Your task to perform on an android device: change the clock display to show seconds Image 0: 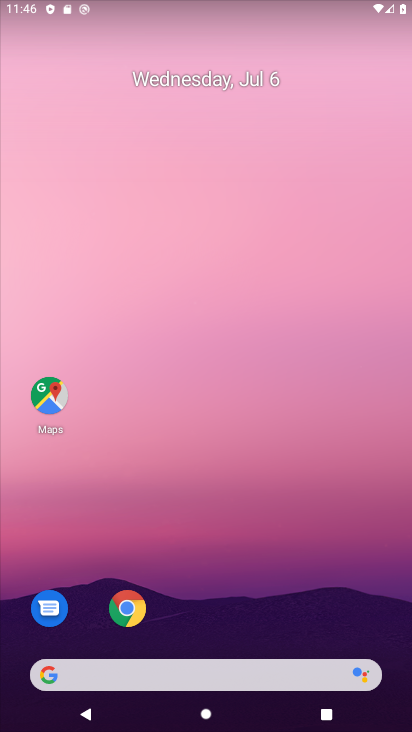
Step 0: press home button
Your task to perform on an android device: change the clock display to show seconds Image 1: 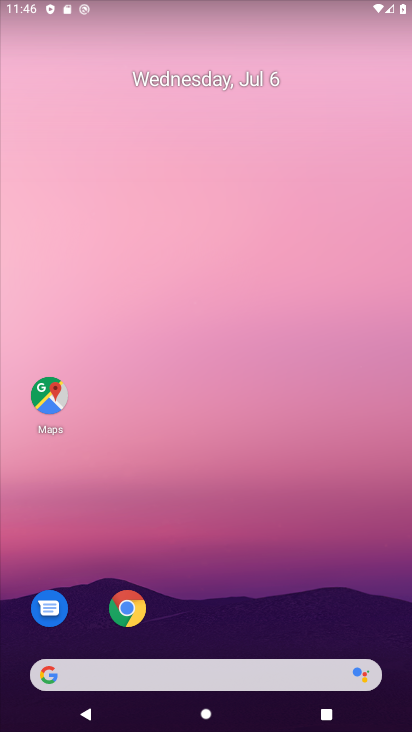
Step 1: drag from (213, 598) to (80, 188)
Your task to perform on an android device: change the clock display to show seconds Image 2: 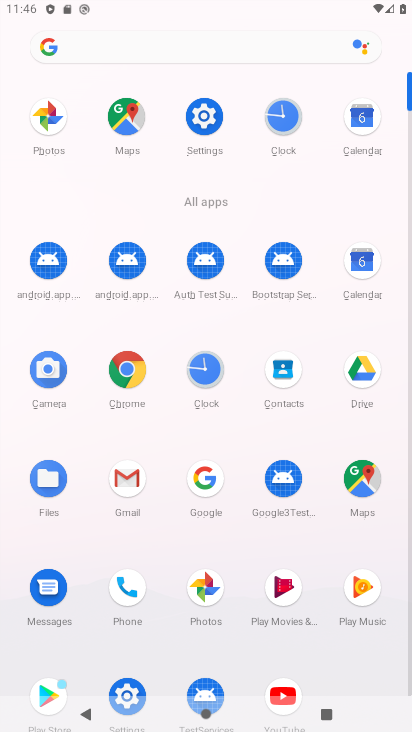
Step 2: click (286, 117)
Your task to perform on an android device: change the clock display to show seconds Image 3: 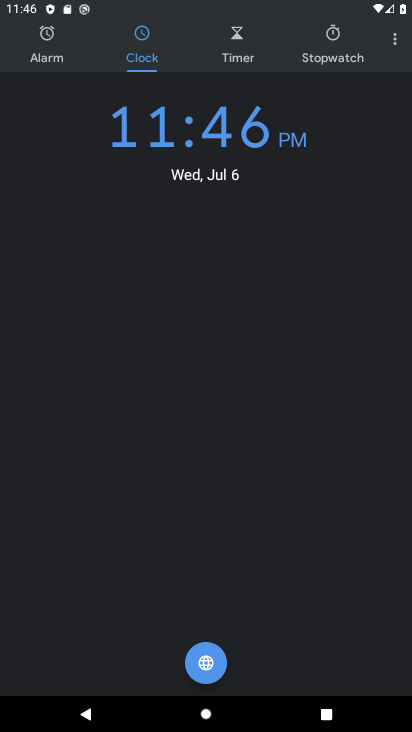
Step 3: click (399, 40)
Your task to perform on an android device: change the clock display to show seconds Image 4: 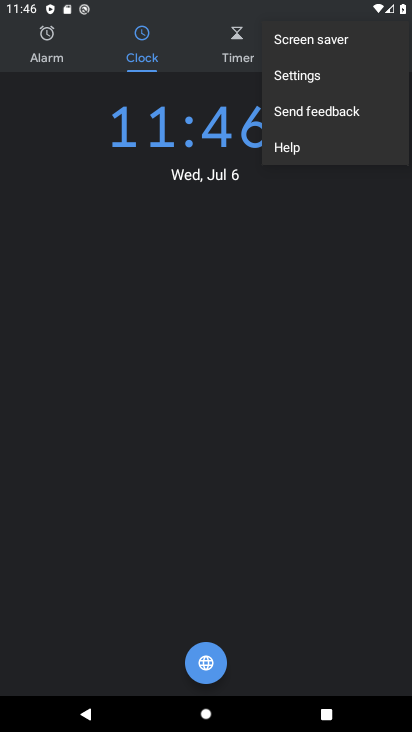
Step 4: click (291, 79)
Your task to perform on an android device: change the clock display to show seconds Image 5: 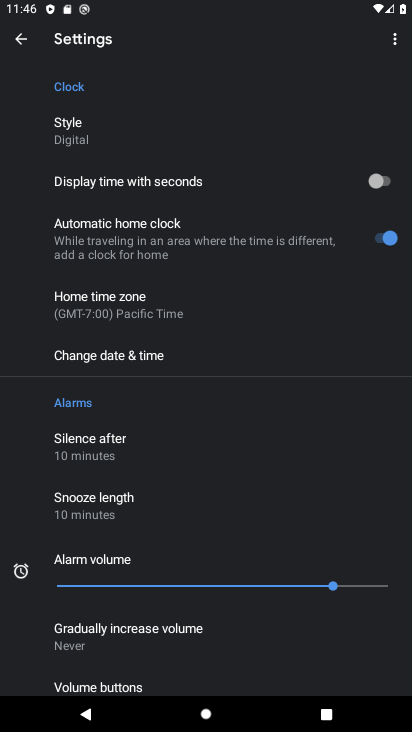
Step 5: click (370, 191)
Your task to perform on an android device: change the clock display to show seconds Image 6: 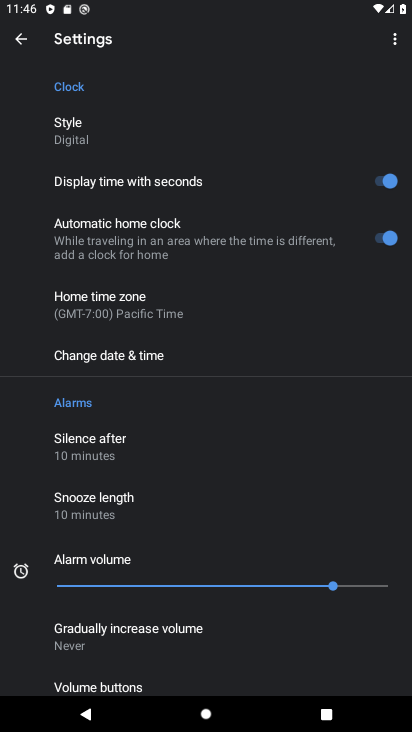
Step 6: task complete